Your task to perform on an android device: turn off smart reply in the gmail app Image 0: 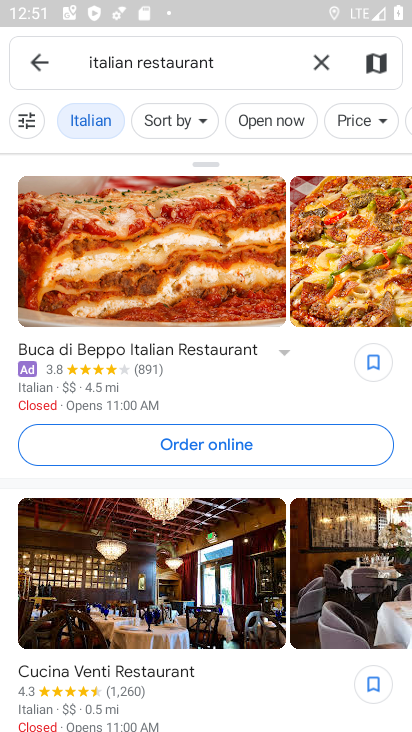
Step 0: press home button
Your task to perform on an android device: turn off smart reply in the gmail app Image 1: 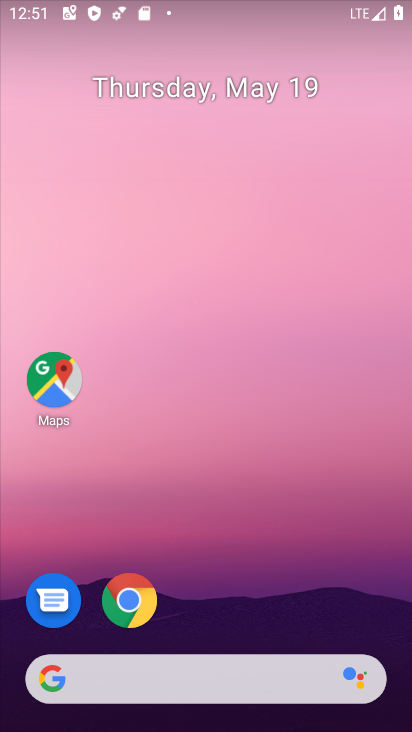
Step 1: drag from (313, 499) to (281, 128)
Your task to perform on an android device: turn off smart reply in the gmail app Image 2: 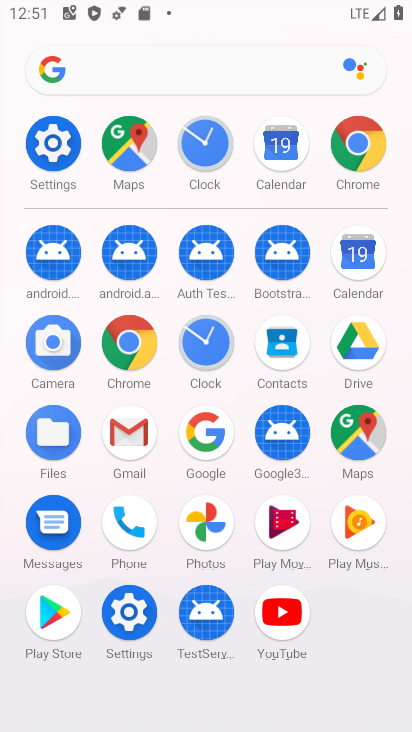
Step 2: click (122, 436)
Your task to perform on an android device: turn off smart reply in the gmail app Image 3: 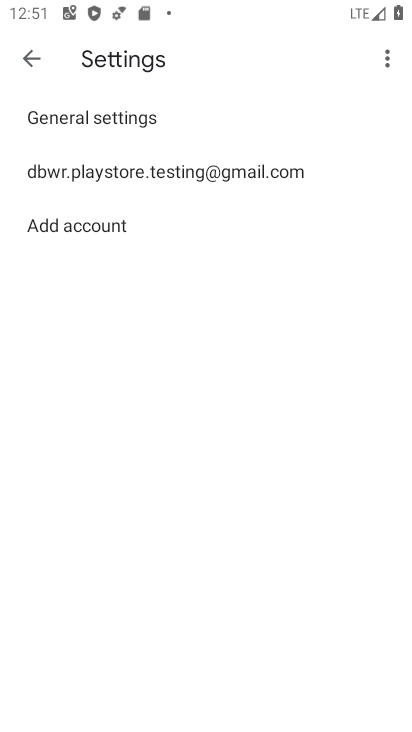
Step 3: click (93, 172)
Your task to perform on an android device: turn off smart reply in the gmail app Image 4: 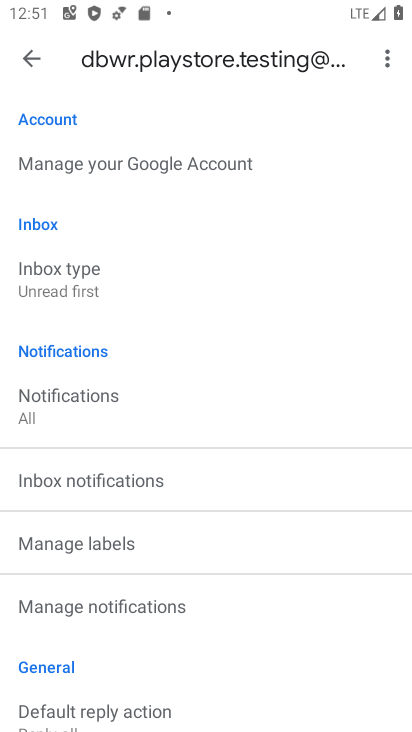
Step 4: drag from (211, 431) to (214, 100)
Your task to perform on an android device: turn off smart reply in the gmail app Image 5: 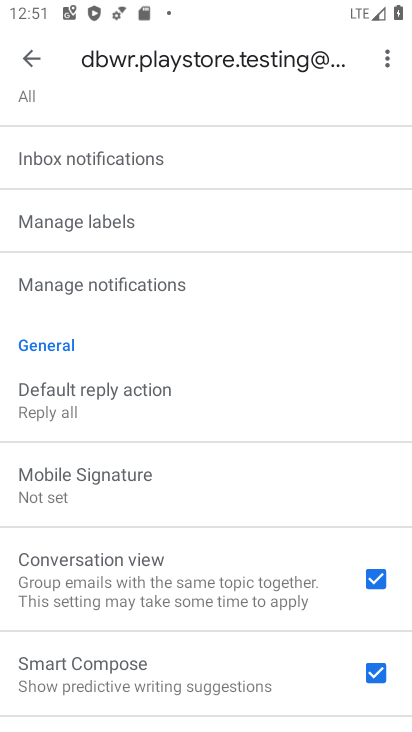
Step 5: drag from (209, 508) to (187, 261)
Your task to perform on an android device: turn off smart reply in the gmail app Image 6: 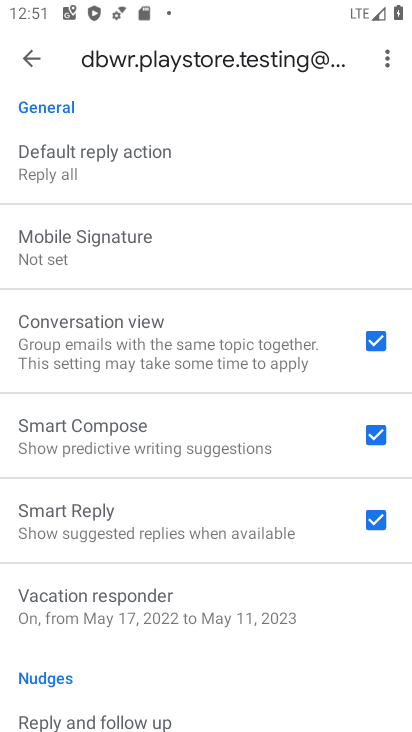
Step 6: click (377, 514)
Your task to perform on an android device: turn off smart reply in the gmail app Image 7: 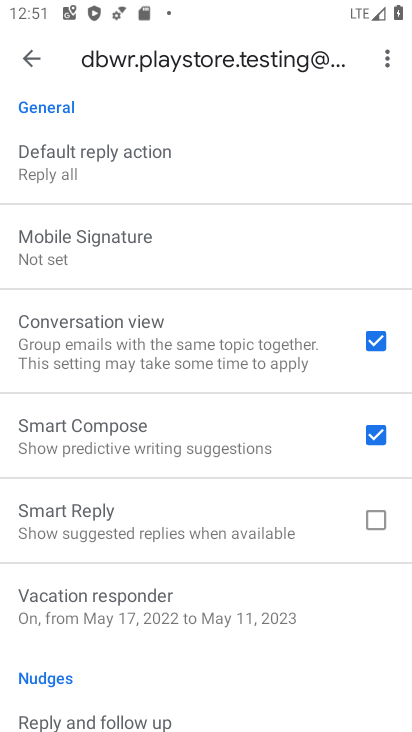
Step 7: task complete